Your task to perform on an android device: change alarm snooze length Image 0: 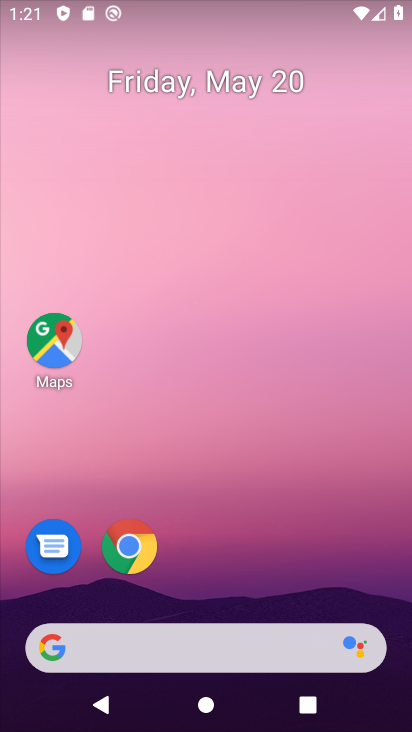
Step 0: drag from (293, 637) to (277, 16)
Your task to perform on an android device: change alarm snooze length Image 1: 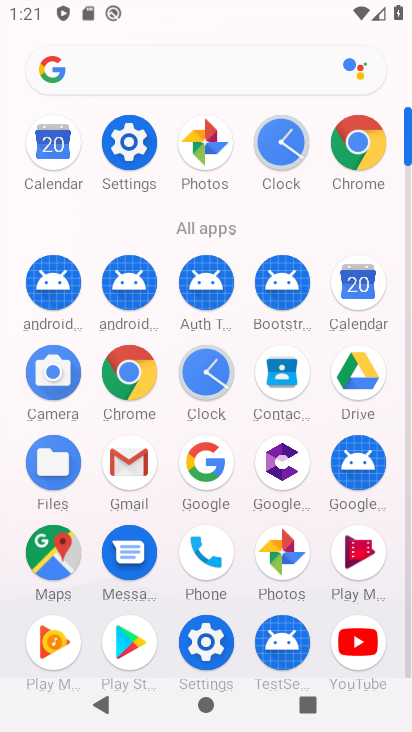
Step 1: click (208, 377)
Your task to perform on an android device: change alarm snooze length Image 2: 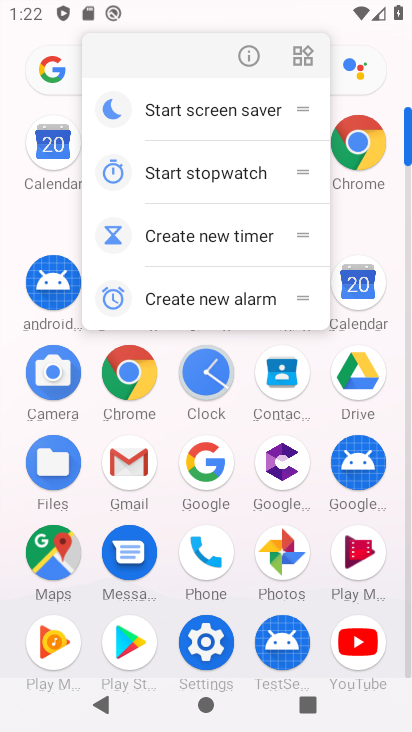
Step 2: click (196, 384)
Your task to perform on an android device: change alarm snooze length Image 3: 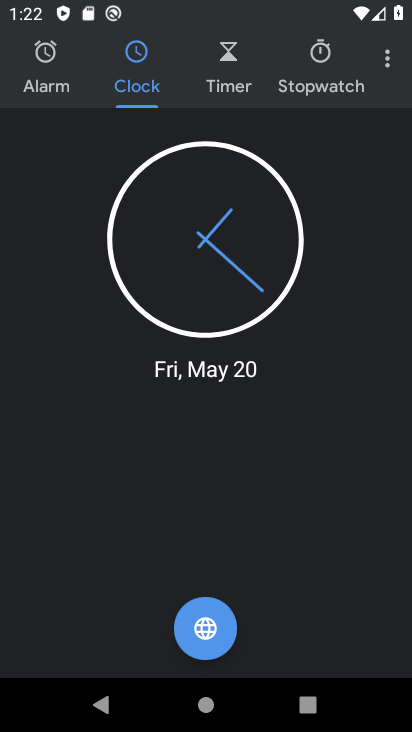
Step 3: click (381, 58)
Your task to perform on an android device: change alarm snooze length Image 4: 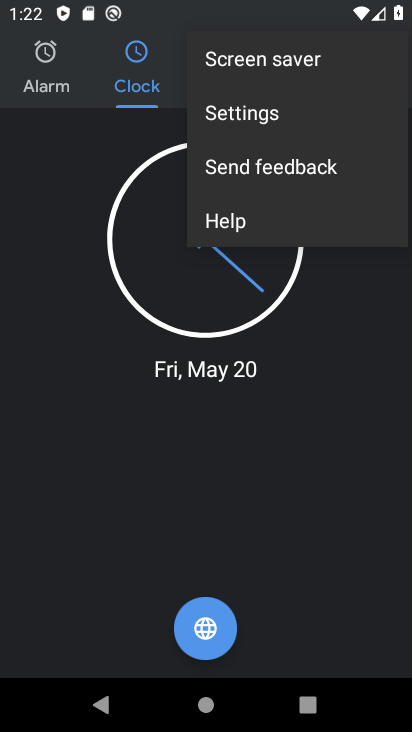
Step 4: click (267, 129)
Your task to perform on an android device: change alarm snooze length Image 5: 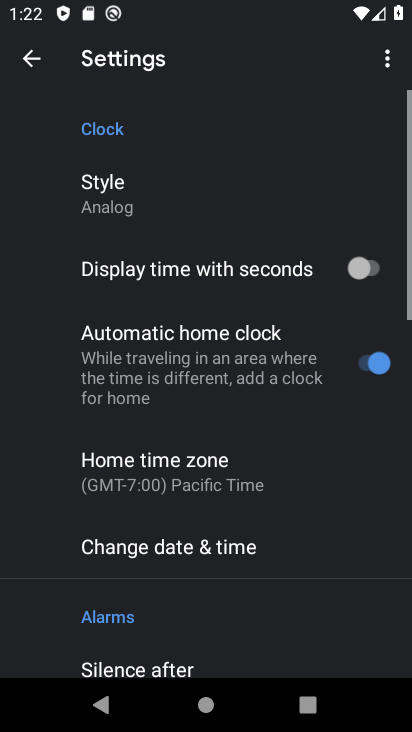
Step 5: drag from (275, 545) to (318, 82)
Your task to perform on an android device: change alarm snooze length Image 6: 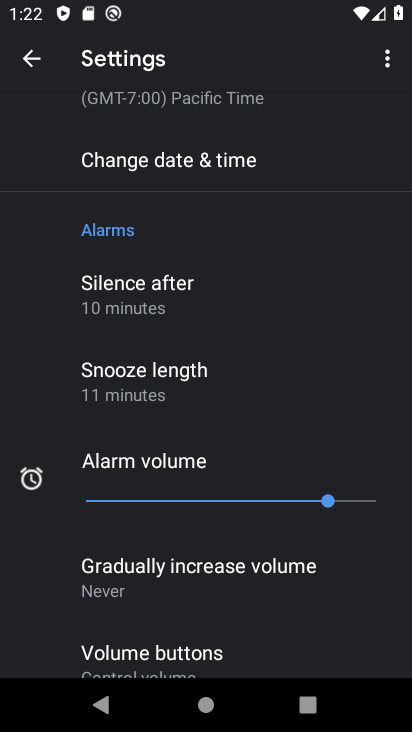
Step 6: click (193, 384)
Your task to perform on an android device: change alarm snooze length Image 7: 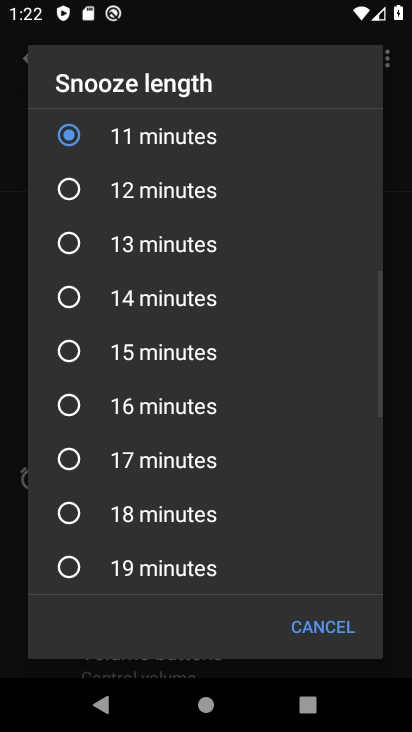
Step 7: click (80, 190)
Your task to perform on an android device: change alarm snooze length Image 8: 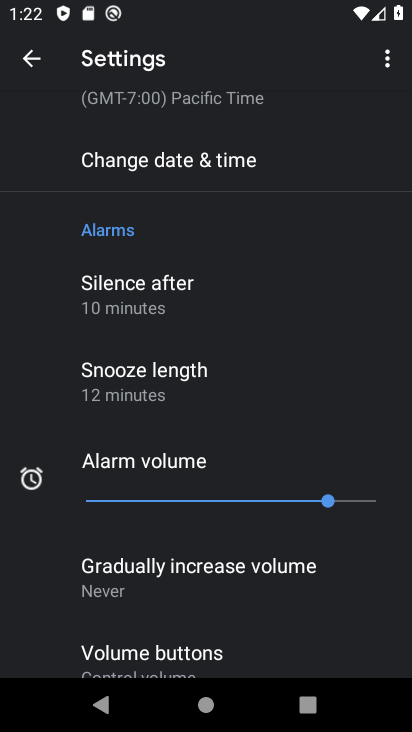
Step 8: task complete